Your task to perform on an android device: toggle show notifications on the lock screen Image 0: 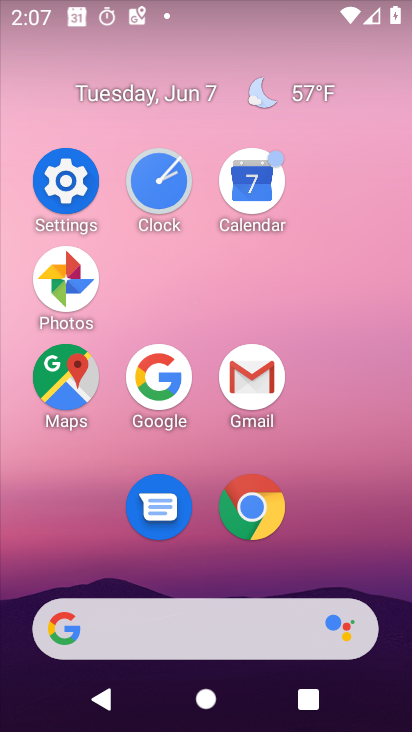
Step 0: click (62, 186)
Your task to perform on an android device: toggle show notifications on the lock screen Image 1: 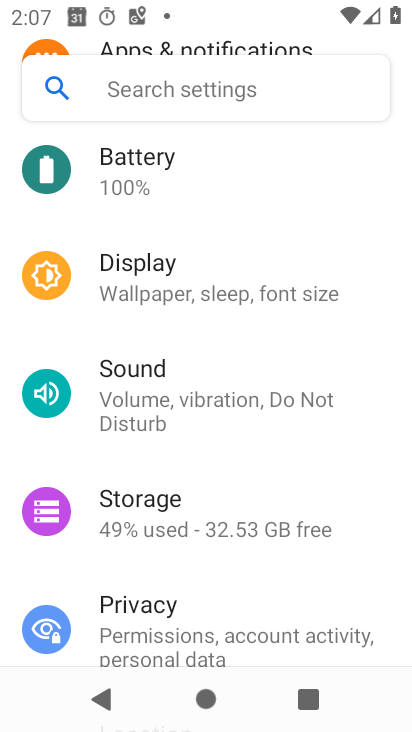
Step 1: drag from (143, 561) to (266, 197)
Your task to perform on an android device: toggle show notifications on the lock screen Image 2: 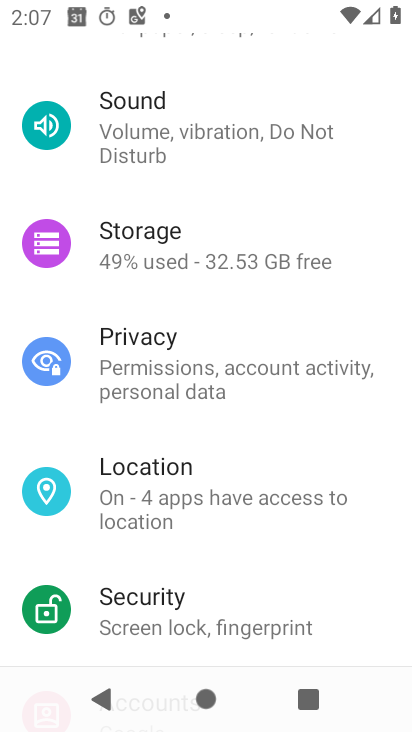
Step 2: drag from (253, 127) to (136, 647)
Your task to perform on an android device: toggle show notifications on the lock screen Image 3: 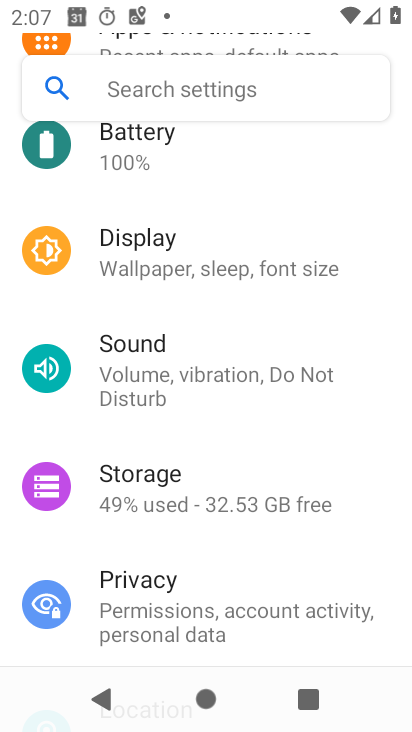
Step 3: drag from (207, 211) to (148, 722)
Your task to perform on an android device: toggle show notifications on the lock screen Image 4: 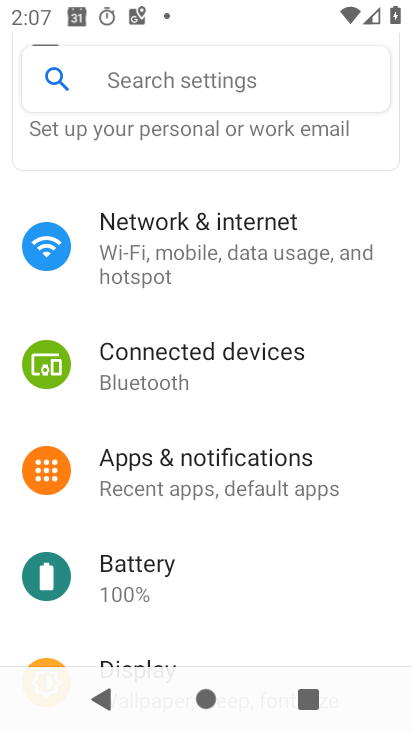
Step 4: click (211, 489)
Your task to perform on an android device: toggle show notifications on the lock screen Image 5: 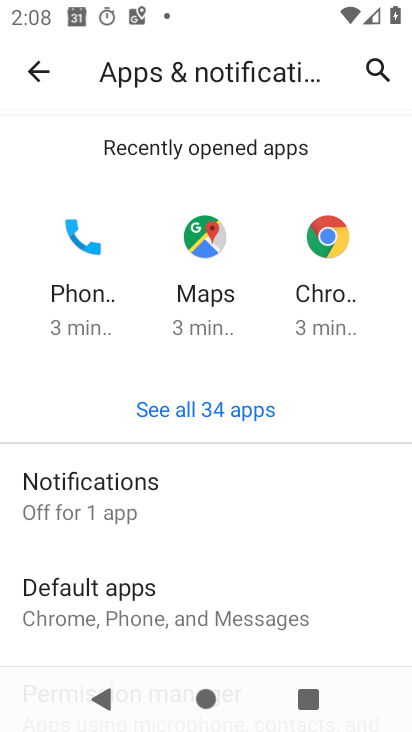
Step 5: click (183, 521)
Your task to perform on an android device: toggle show notifications on the lock screen Image 6: 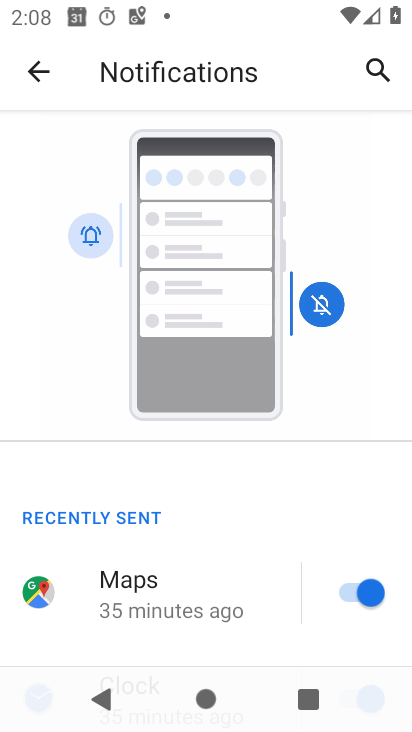
Step 6: drag from (101, 588) to (79, 129)
Your task to perform on an android device: toggle show notifications on the lock screen Image 7: 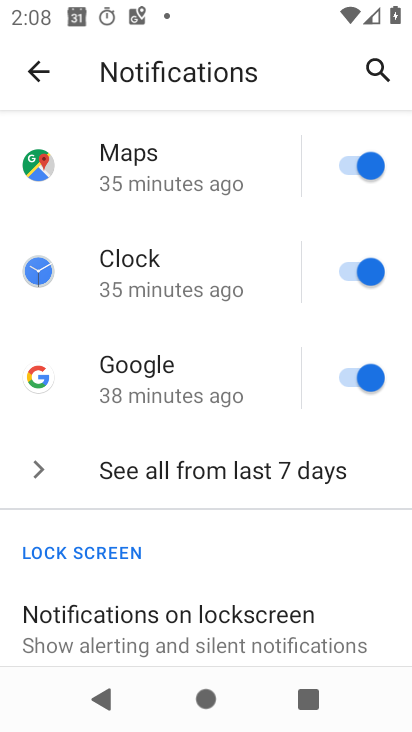
Step 7: drag from (128, 571) to (211, 266)
Your task to perform on an android device: toggle show notifications on the lock screen Image 8: 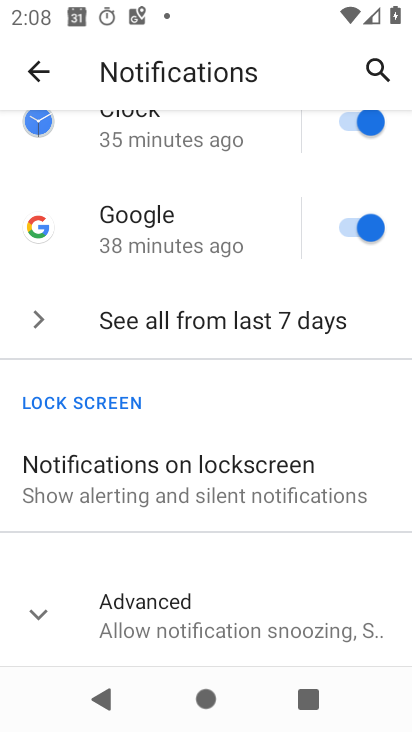
Step 8: click (247, 463)
Your task to perform on an android device: toggle show notifications on the lock screen Image 9: 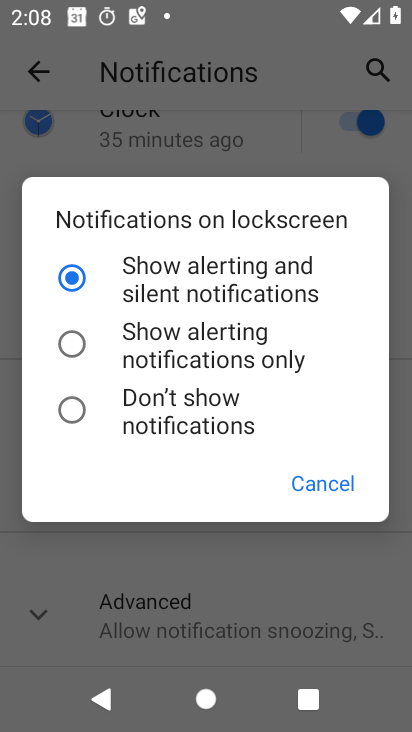
Step 9: click (147, 345)
Your task to perform on an android device: toggle show notifications on the lock screen Image 10: 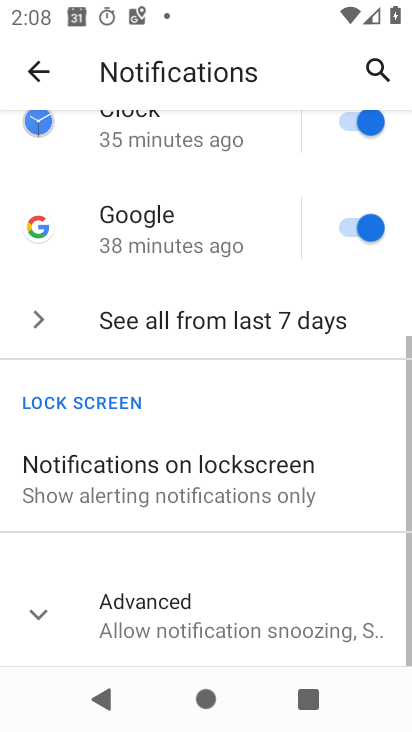
Step 10: task complete